Your task to perform on an android device: Search for "logitech g910" on walmart.com, select the first entry, and add it to the cart. Image 0: 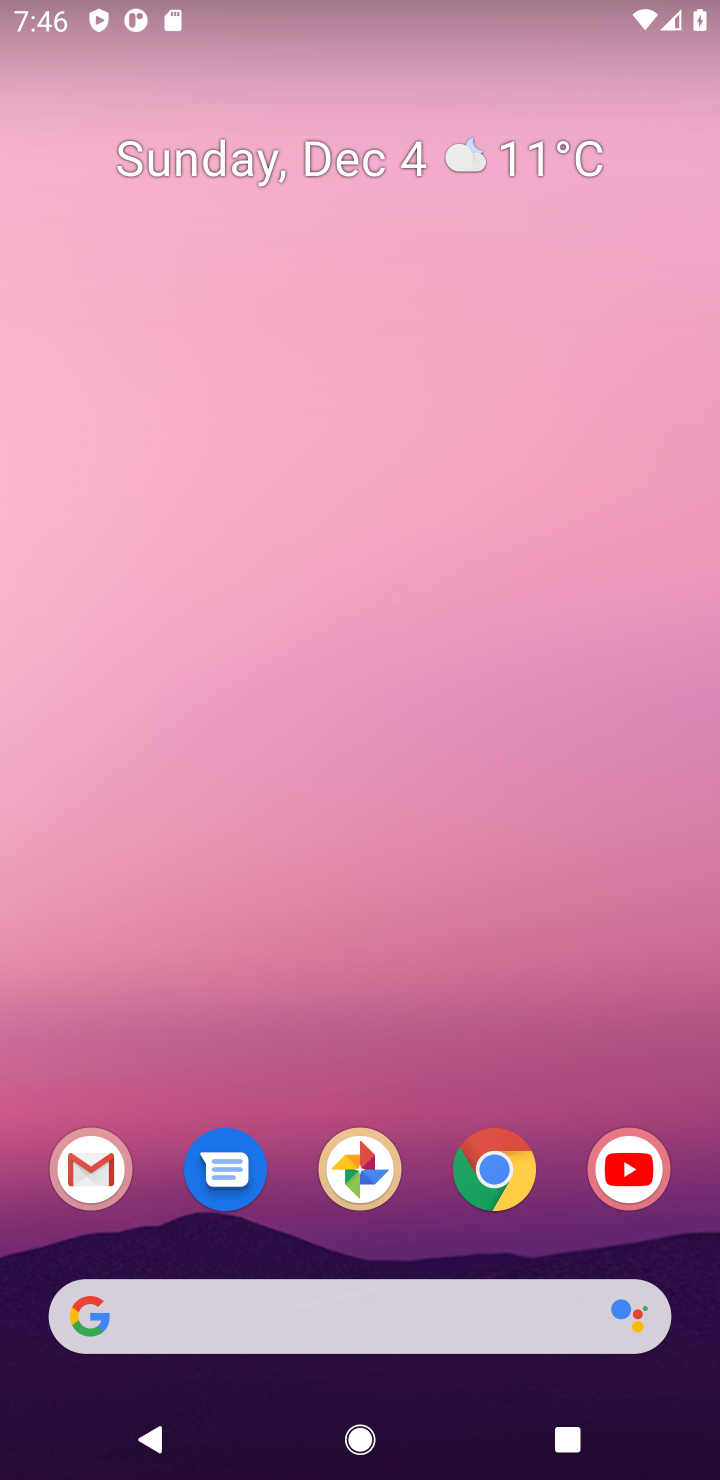
Step 0: drag from (441, 1414) to (593, 23)
Your task to perform on an android device: Search for "logitech g910" on walmart.com, select the first entry, and add it to the cart. Image 1: 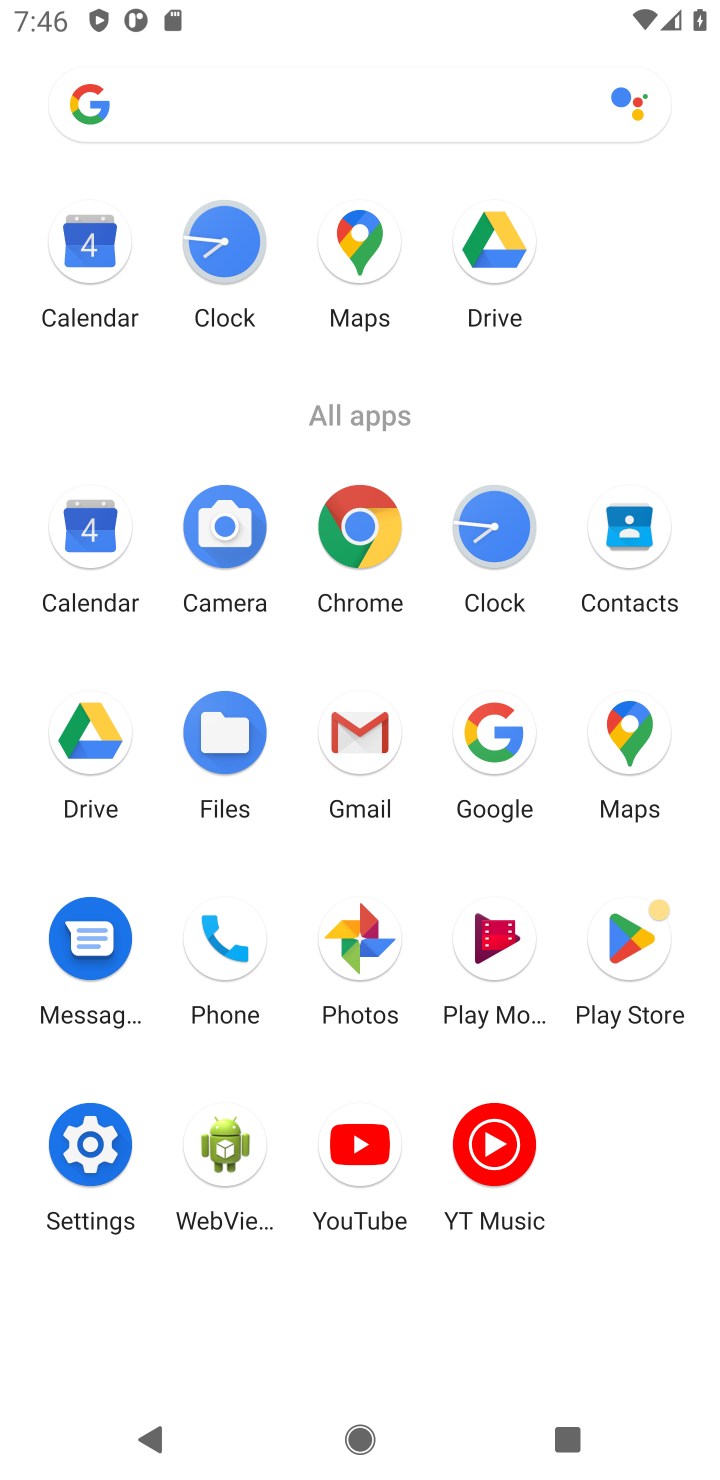
Step 1: click (372, 536)
Your task to perform on an android device: Search for "logitech g910" on walmart.com, select the first entry, and add it to the cart. Image 2: 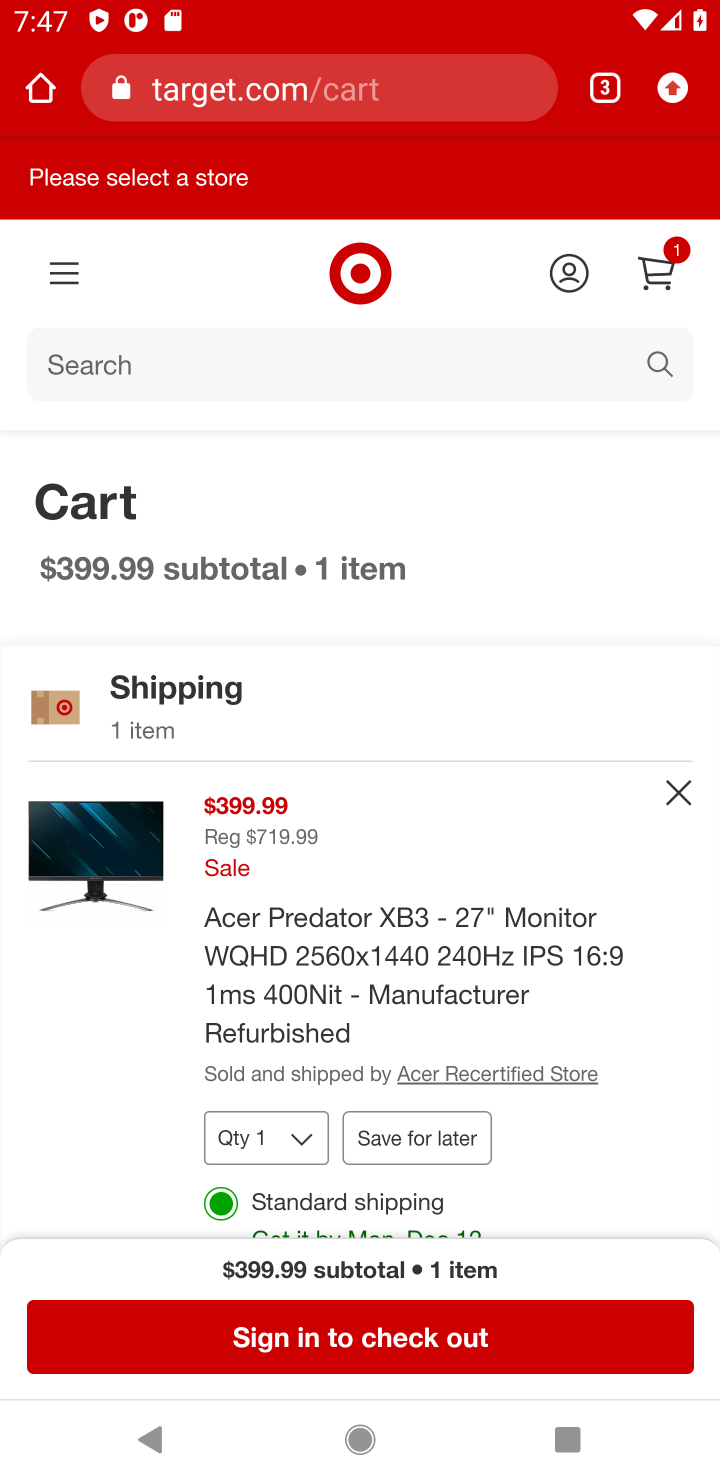
Step 2: task complete